Your task to perform on an android device: turn notification dots off Image 0: 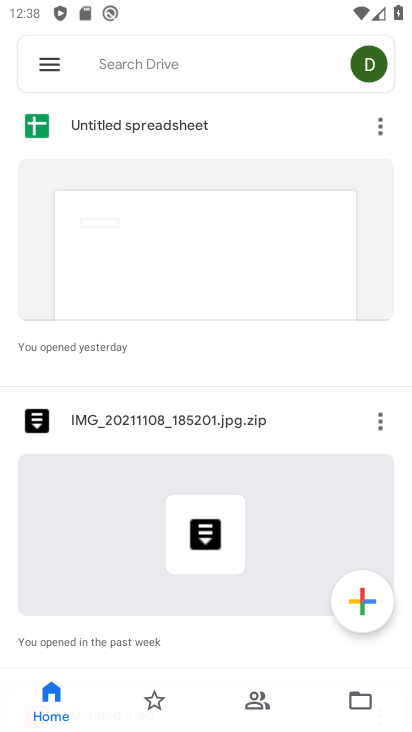
Step 0: press home button
Your task to perform on an android device: turn notification dots off Image 1: 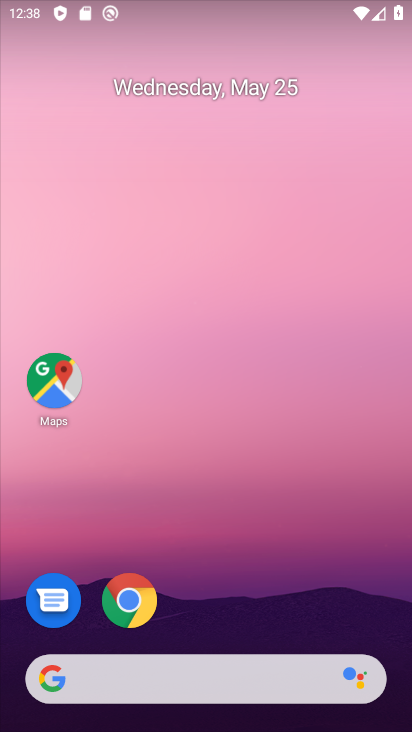
Step 1: drag from (242, 613) to (197, 211)
Your task to perform on an android device: turn notification dots off Image 2: 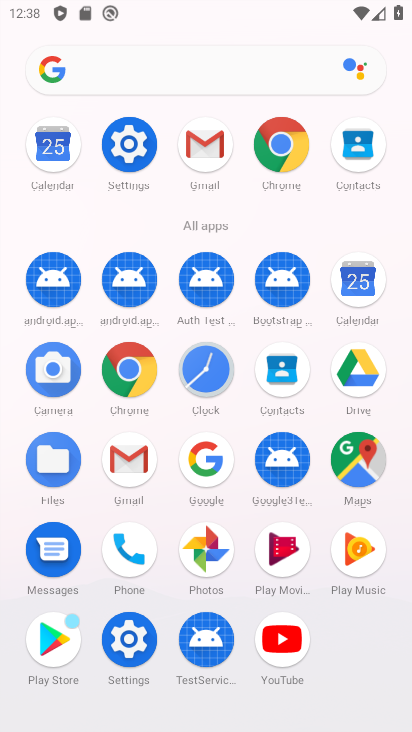
Step 2: click (140, 637)
Your task to perform on an android device: turn notification dots off Image 3: 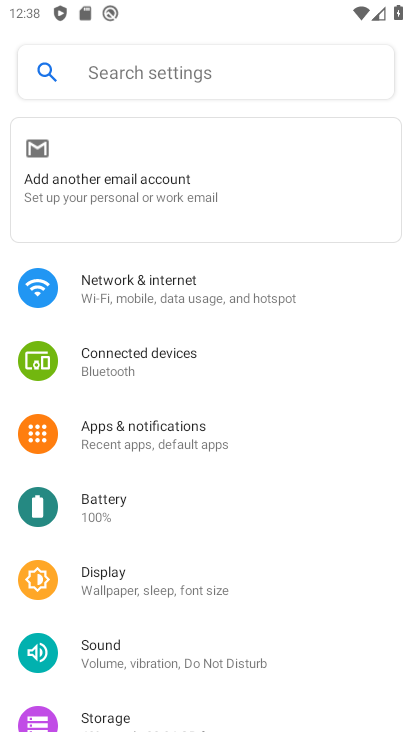
Step 3: click (209, 428)
Your task to perform on an android device: turn notification dots off Image 4: 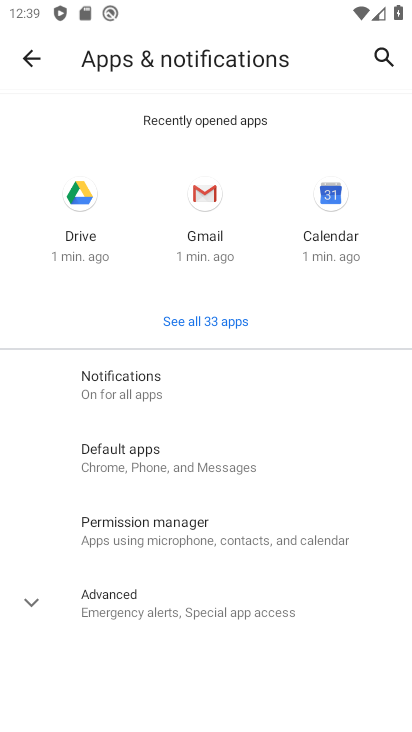
Step 4: click (129, 389)
Your task to perform on an android device: turn notification dots off Image 5: 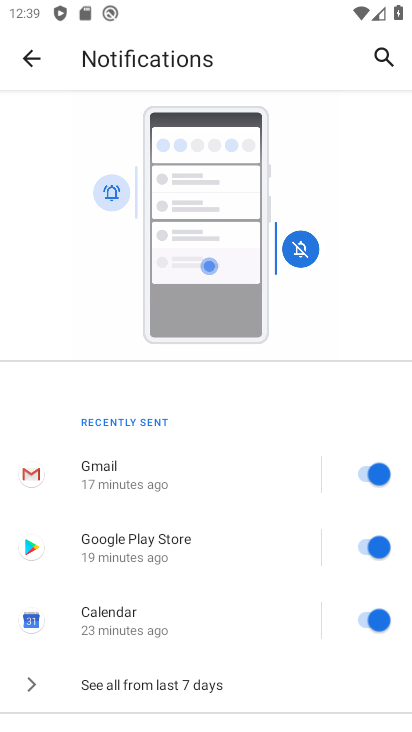
Step 5: drag from (216, 626) to (171, 295)
Your task to perform on an android device: turn notification dots off Image 6: 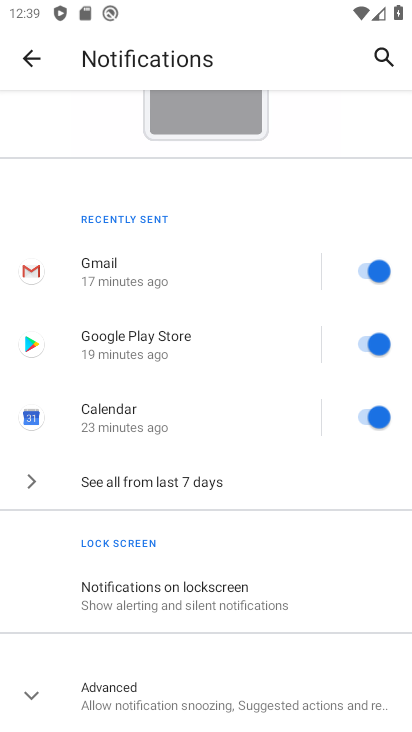
Step 6: click (226, 705)
Your task to perform on an android device: turn notification dots off Image 7: 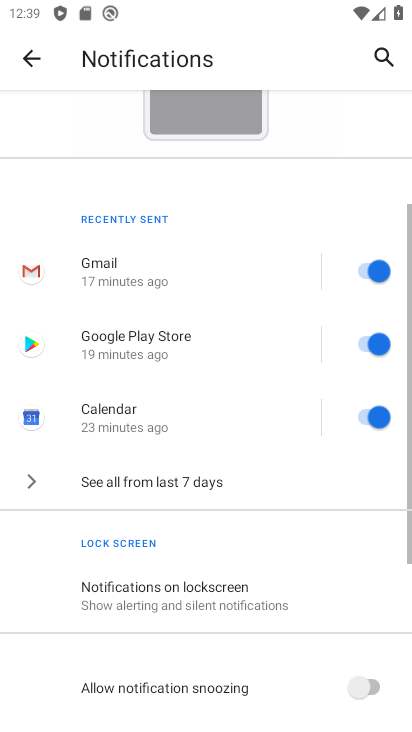
Step 7: drag from (224, 658) to (204, 293)
Your task to perform on an android device: turn notification dots off Image 8: 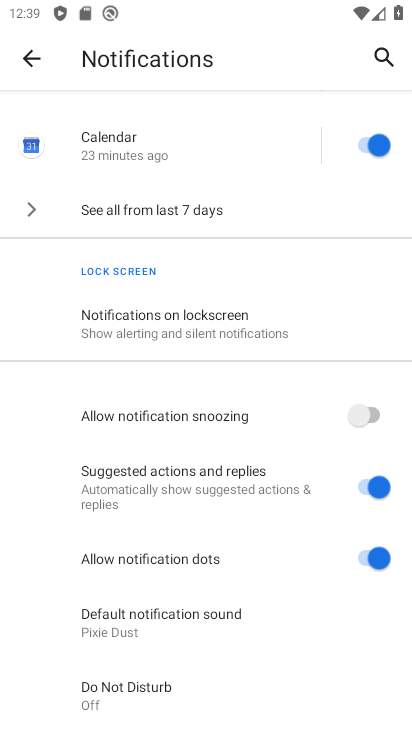
Step 8: click (385, 545)
Your task to perform on an android device: turn notification dots off Image 9: 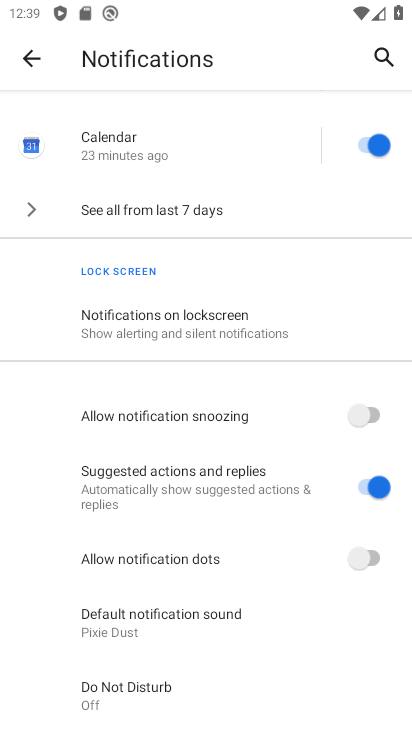
Step 9: task complete